Your task to perform on an android device: clear history in the chrome app Image 0: 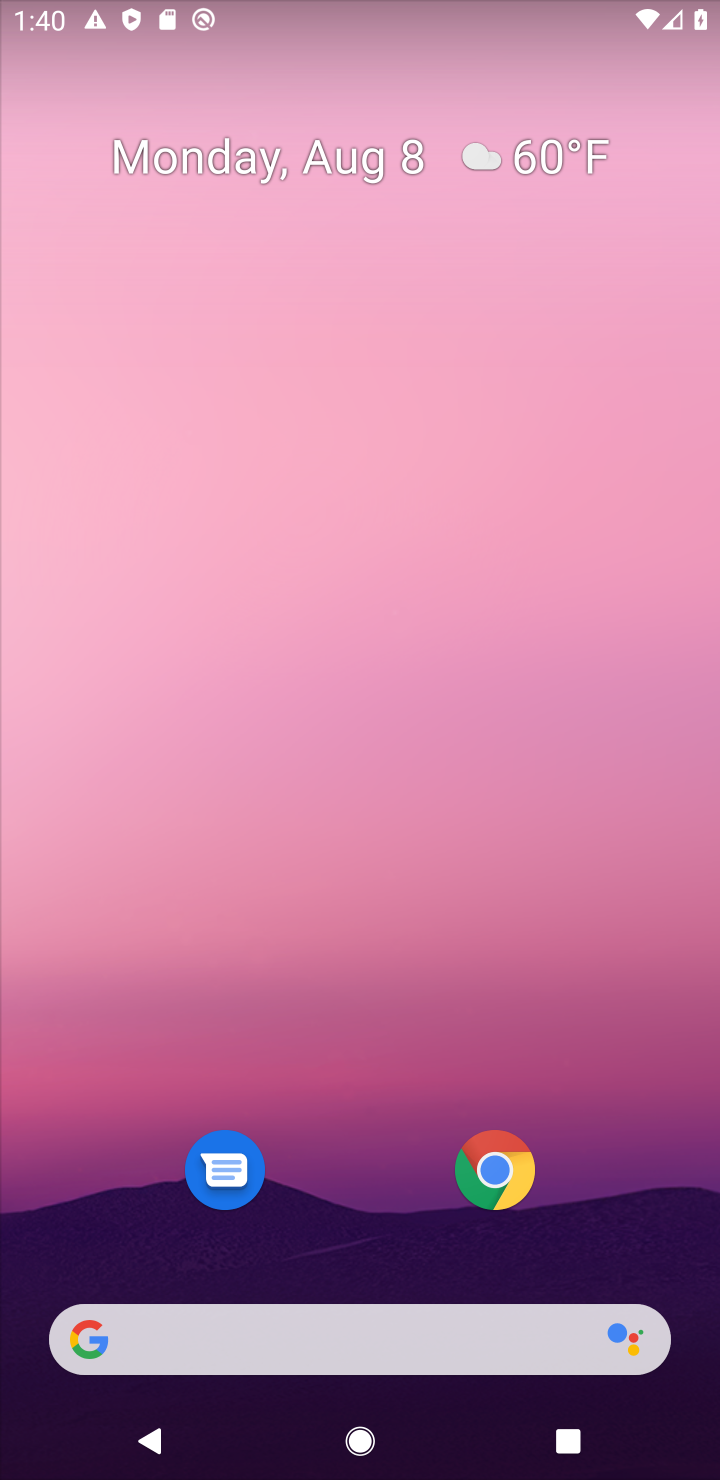
Step 0: click (524, 1151)
Your task to perform on an android device: clear history in the chrome app Image 1: 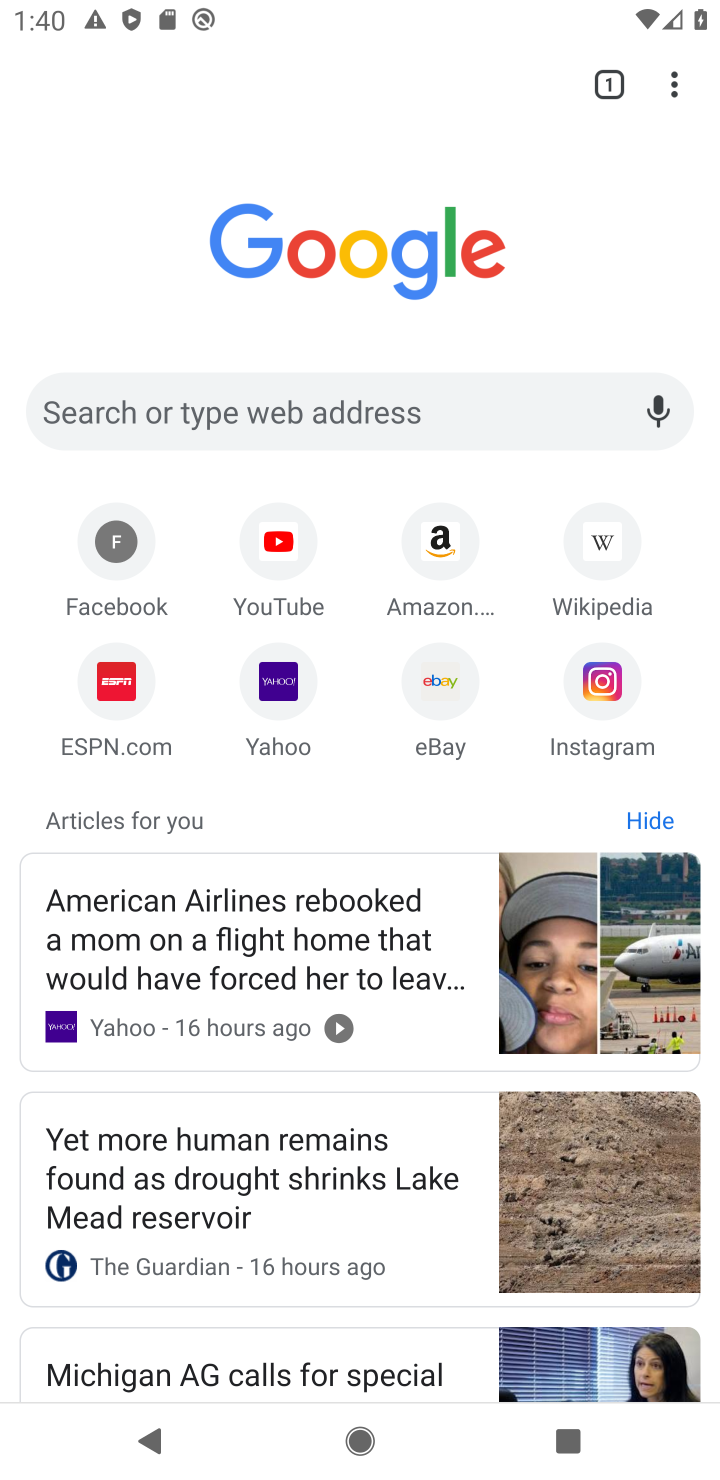
Step 1: click (686, 78)
Your task to perform on an android device: clear history in the chrome app Image 2: 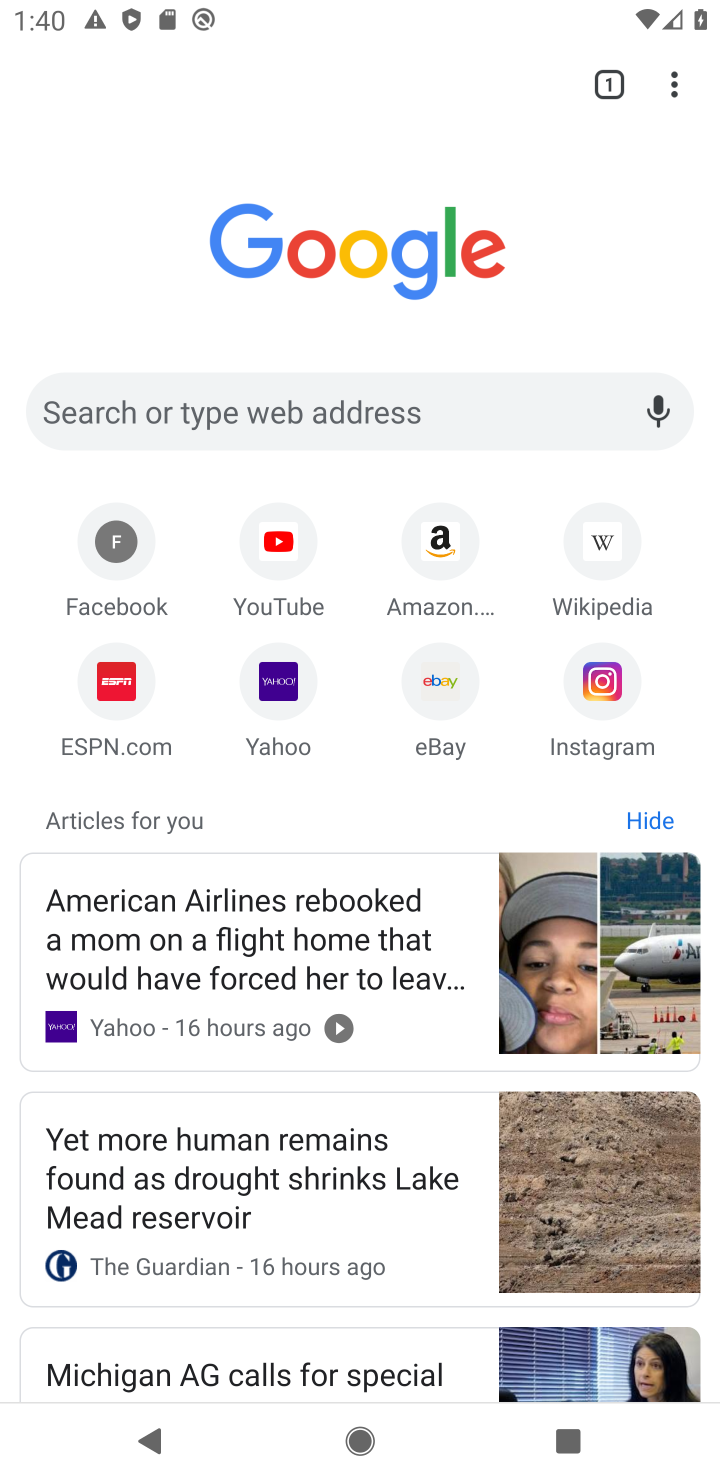
Step 2: click (670, 93)
Your task to perform on an android device: clear history in the chrome app Image 3: 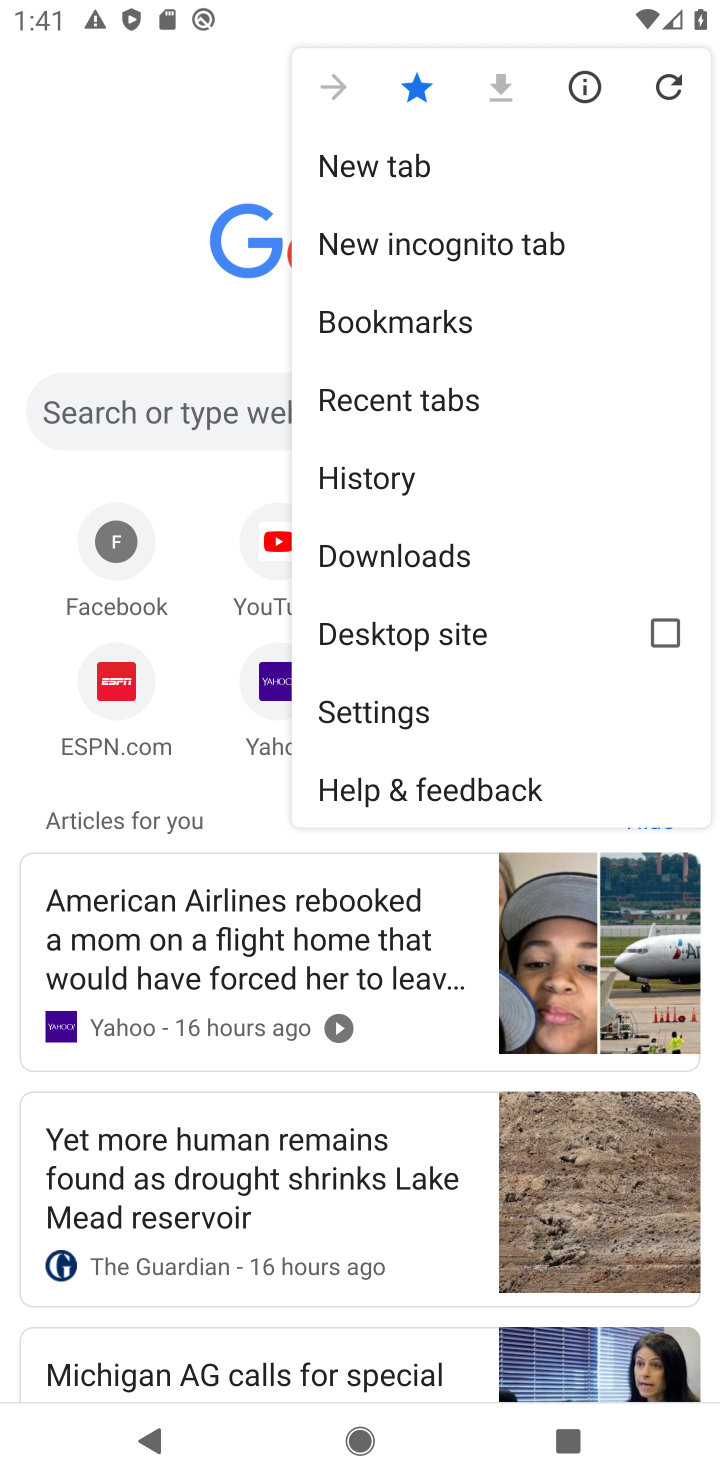
Step 3: click (385, 468)
Your task to perform on an android device: clear history in the chrome app Image 4: 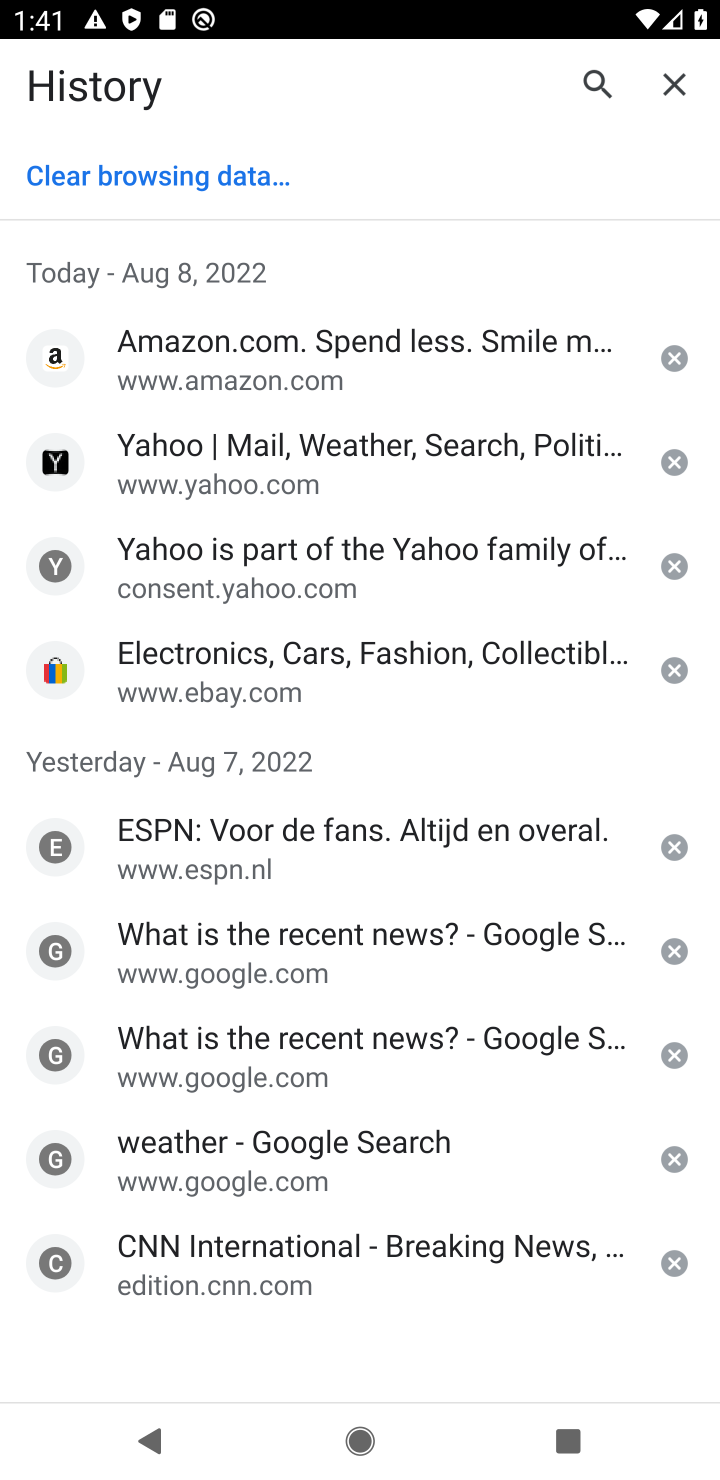
Step 4: click (231, 186)
Your task to perform on an android device: clear history in the chrome app Image 5: 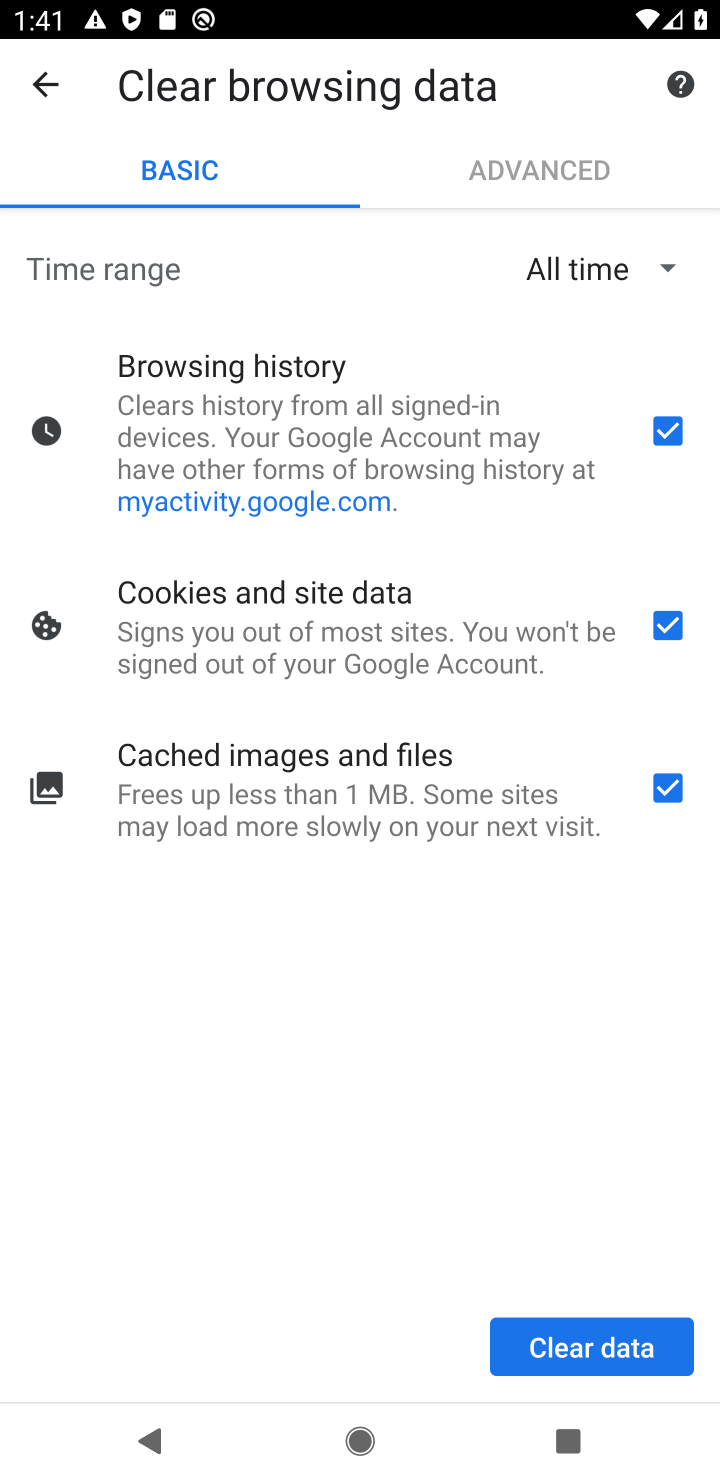
Step 5: click (609, 1337)
Your task to perform on an android device: clear history in the chrome app Image 6: 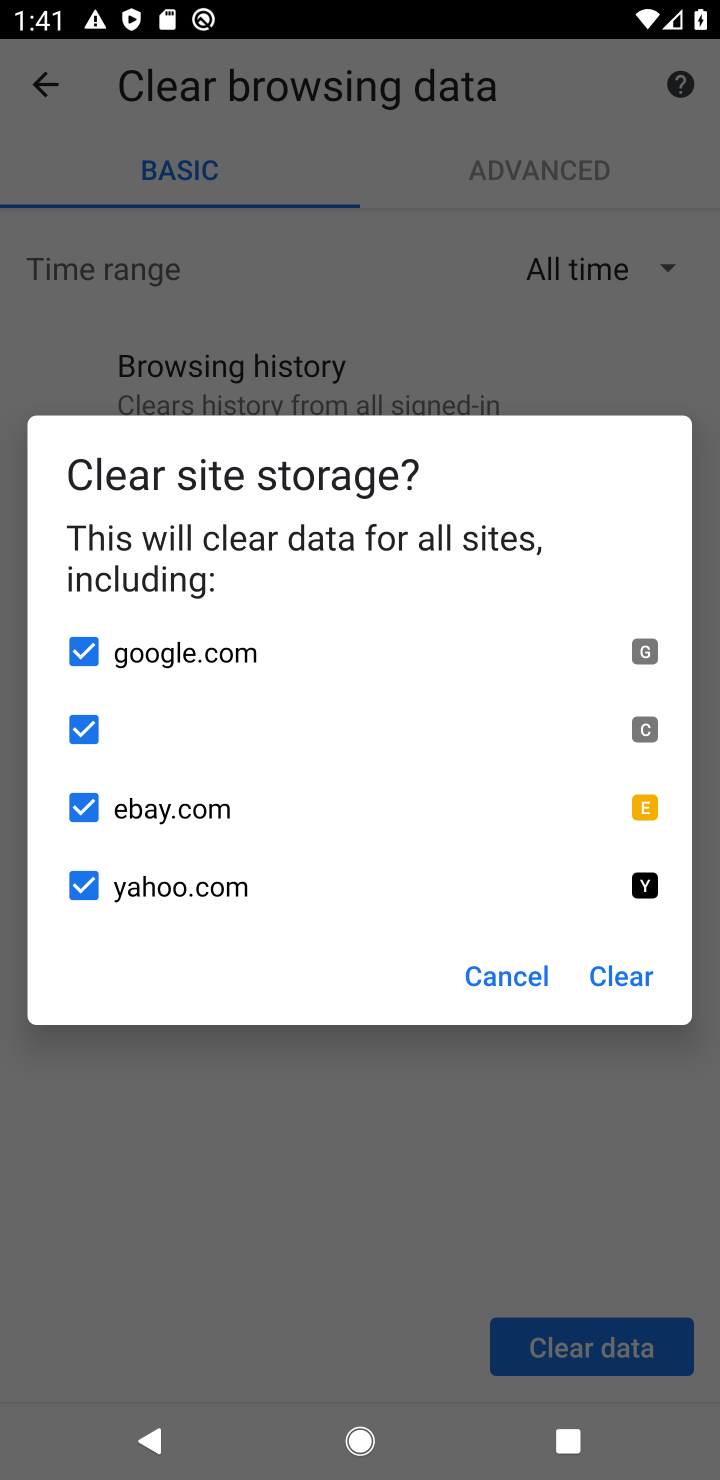
Step 6: click (612, 978)
Your task to perform on an android device: clear history in the chrome app Image 7: 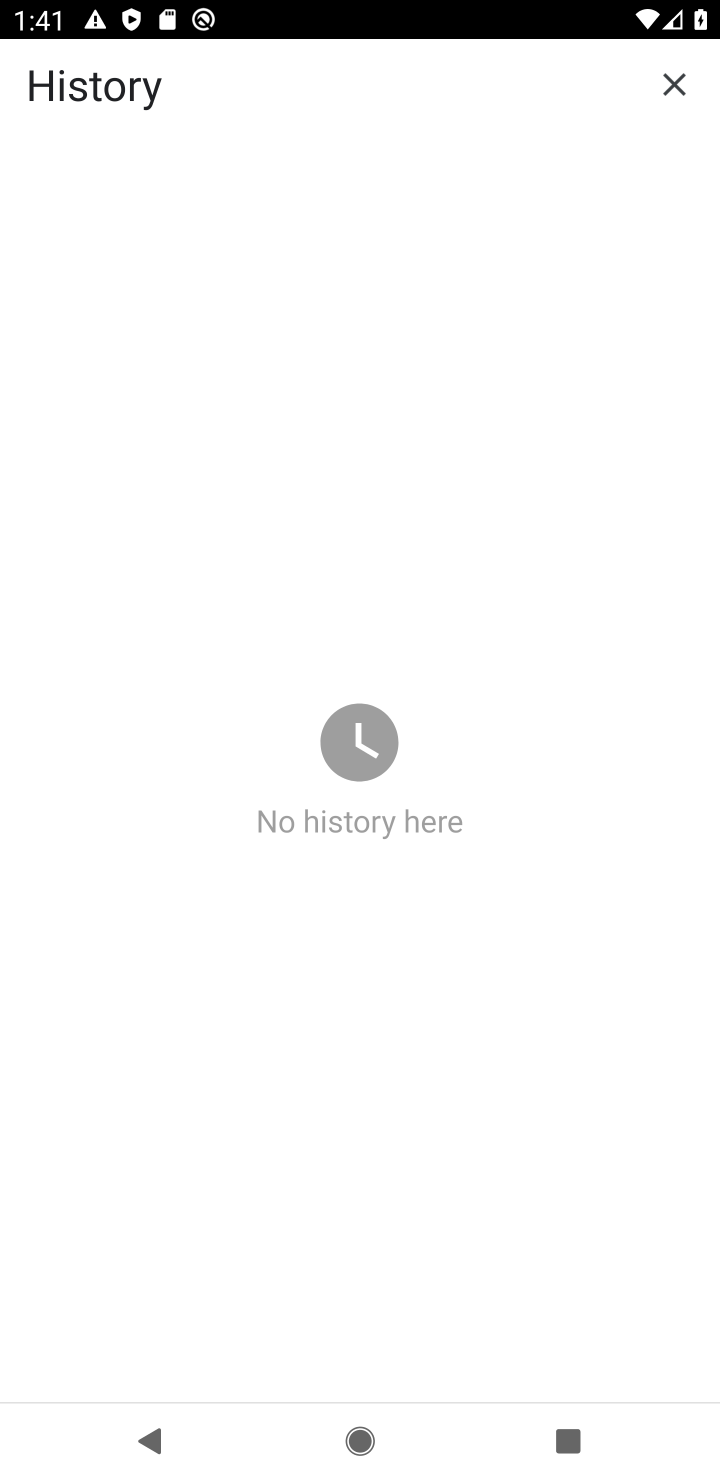
Step 7: task complete